Your task to perform on an android device: delete a single message in the gmail app Image 0: 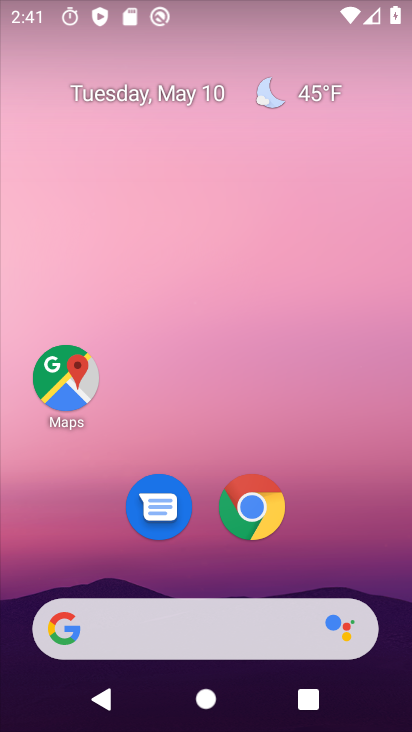
Step 0: drag from (239, 579) to (254, 273)
Your task to perform on an android device: delete a single message in the gmail app Image 1: 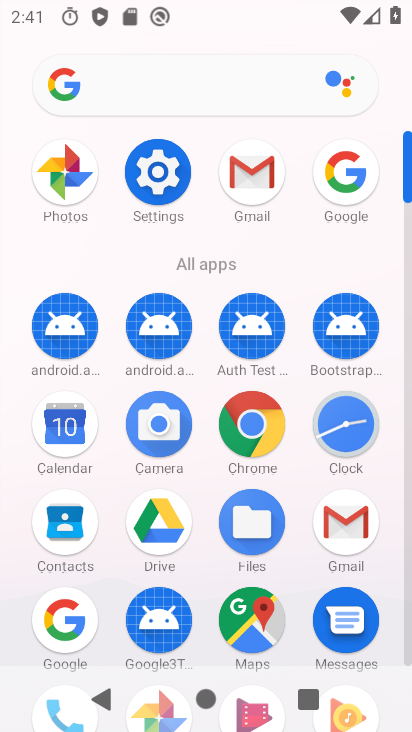
Step 1: click (259, 198)
Your task to perform on an android device: delete a single message in the gmail app Image 2: 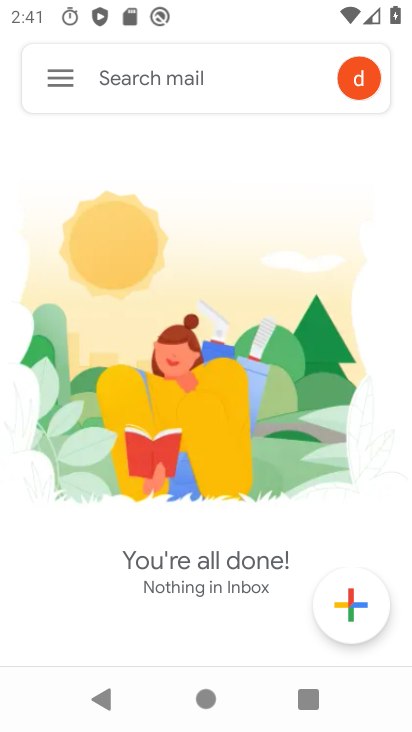
Step 2: click (48, 84)
Your task to perform on an android device: delete a single message in the gmail app Image 3: 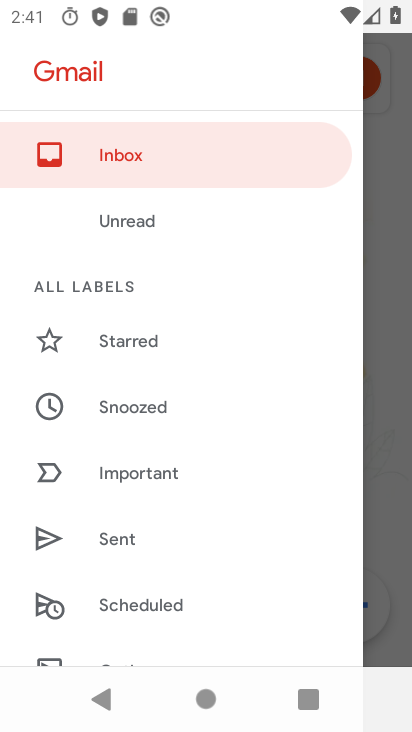
Step 3: click (147, 145)
Your task to perform on an android device: delete a single message in the gmail app Image 4: 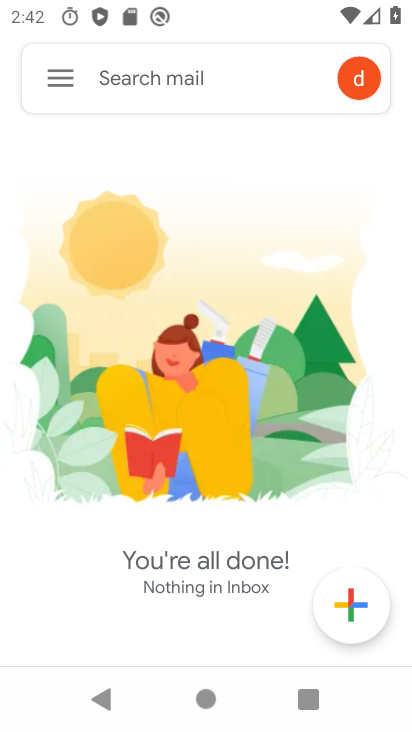
Step 4: task complete